Your task to perform on an android device: set the timer Image 0: 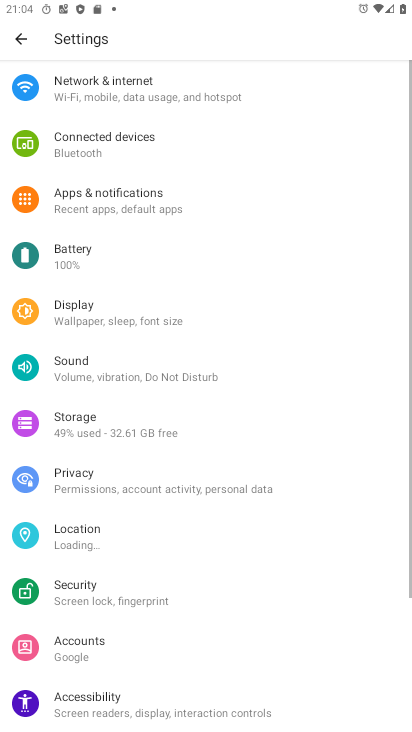
Step 0: drag from (36, 687) to (296, 24)
Your task to perform on an android device: set the timer Image 1: 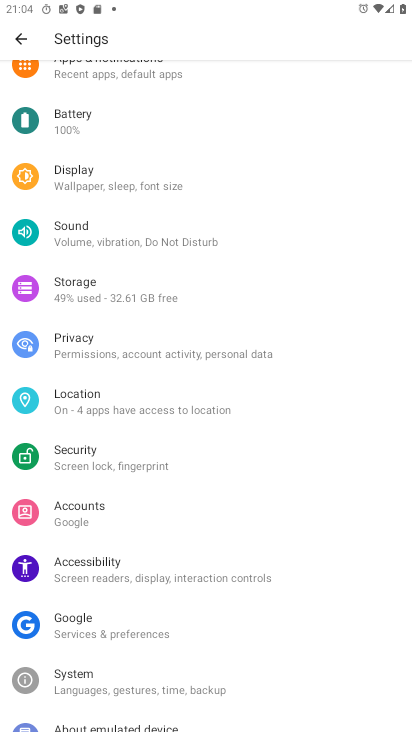
Step 1: press home button
Your task to perform on an android device: set the timer Image 2: 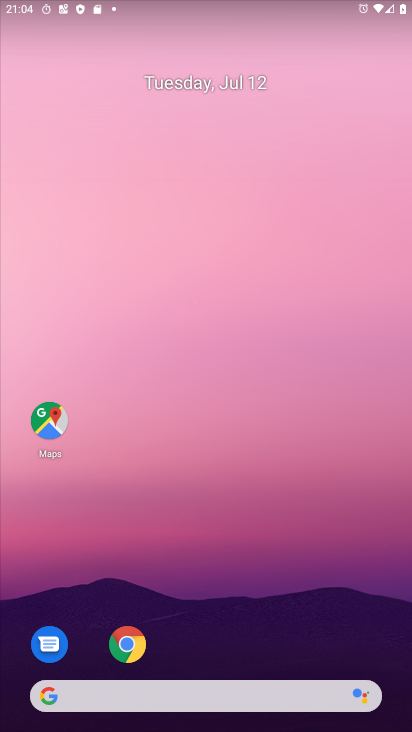
Step 2: drag from (43, 694) to (309, 101)
Your task to perform on an android device: set the timer Image 3: 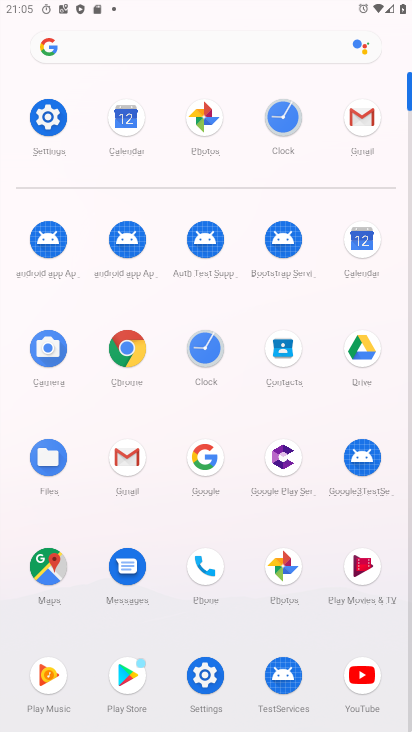
Step 3: click (184, 353)
Your task to perform on an android device: set the timer Image 4: 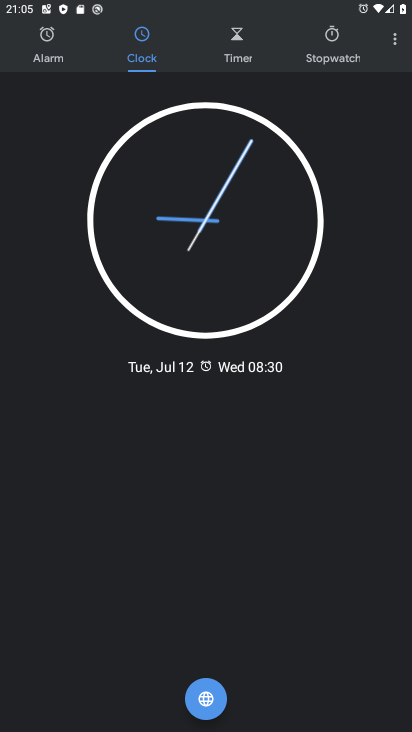
Step 4: click (243, 46)
Your task to perform on an android device: set the timer Image 5: 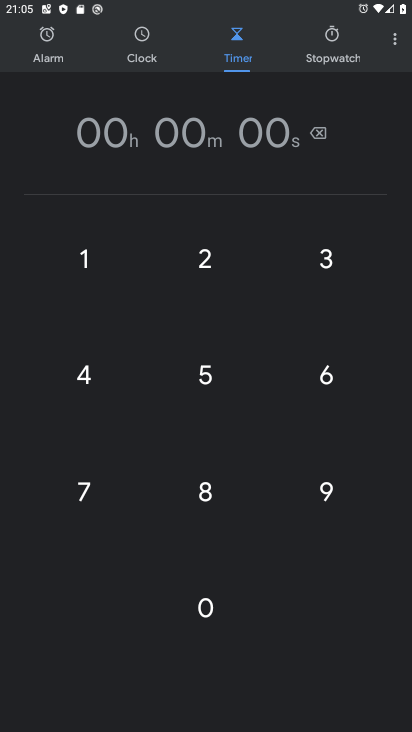
Step 5: click (206, 264)
Your task to perform on an android device: set the timer Image 6: 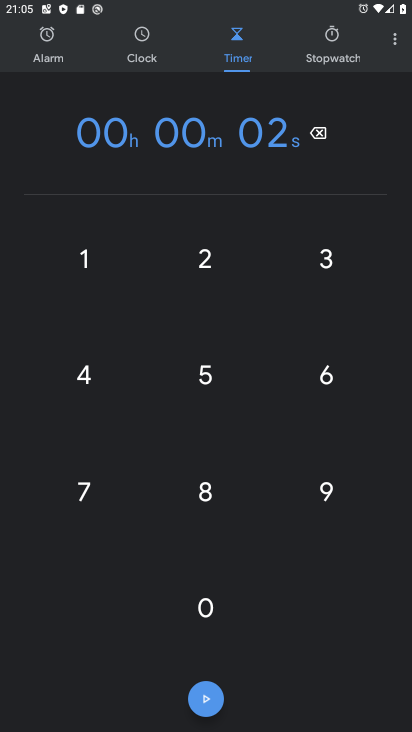
Step 6: click (203, 369)
Your task to perform on an android device: set the timer Image 7: 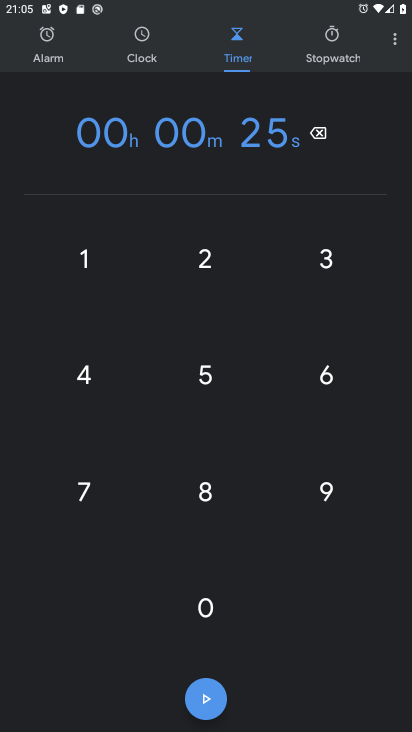
Step 7: click (242, 480)
Your task to perform on an android device: set the timer Image 8: 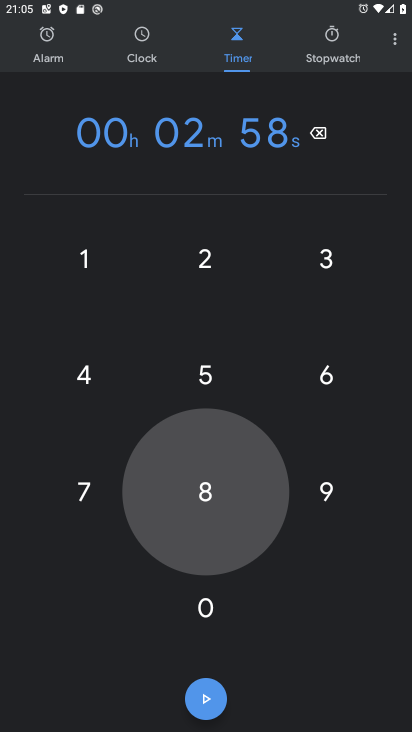
Step 8: click (117, 406)
Your task to perform on an android device: set the timer Image 9: 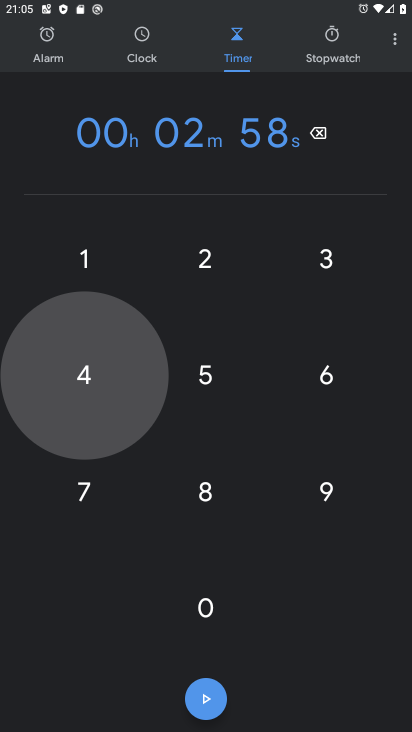
Step 9: click (76, 352)
Your task to perform on an android device: set the timer Image 10: 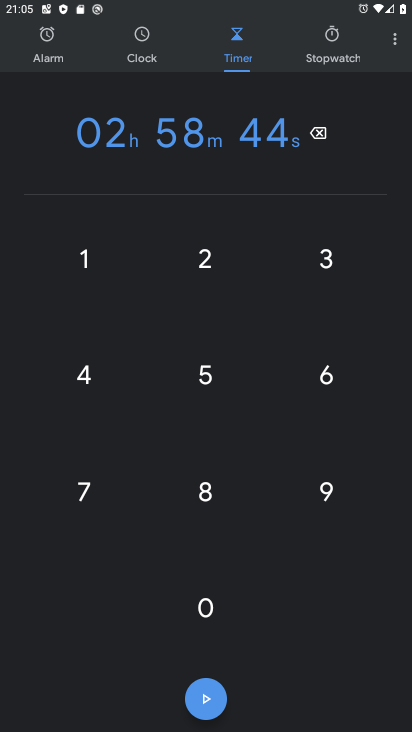
Step 10: click (56, 302)
Your task to perform on an android device: set the timer Image 11: 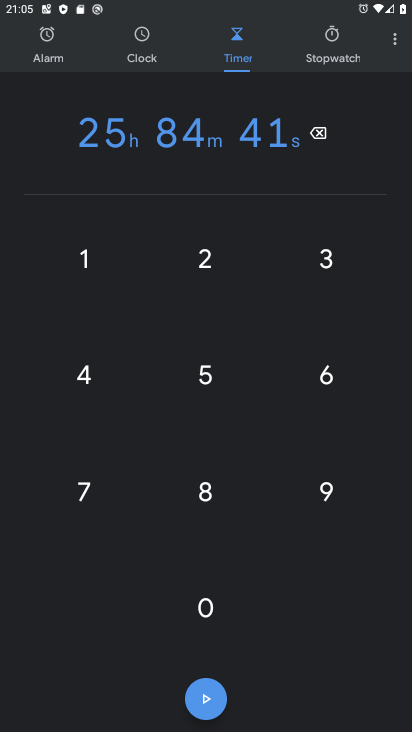
Step 11: task complete